Your task to perform on an android device: Show me recent news Image 0: 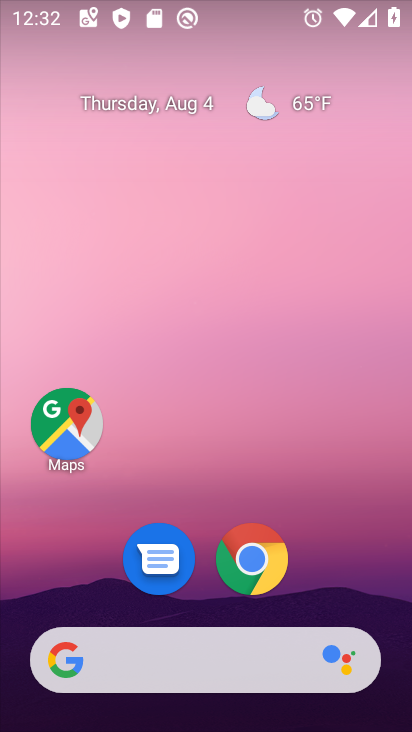
Step 0: drag from (196, 664) to (237, 133)
Your task to perform on an android device: Show me recent news Image 1: 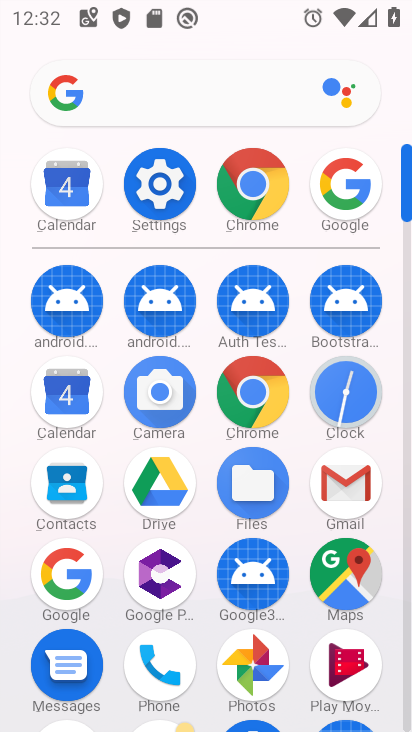
Step 1: click (337, 181)
Your task to perform on an android device: Show me recent news Image 2: 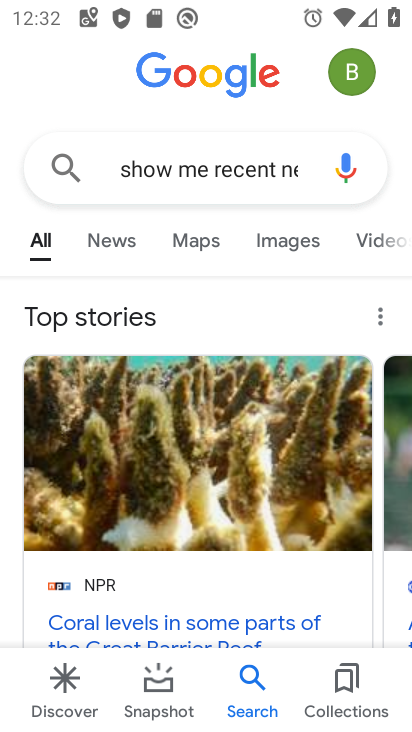
Step 2: drag from (216, 603) to (257, 439)
Your task to perform on an android device: Show me recent news Image 3: 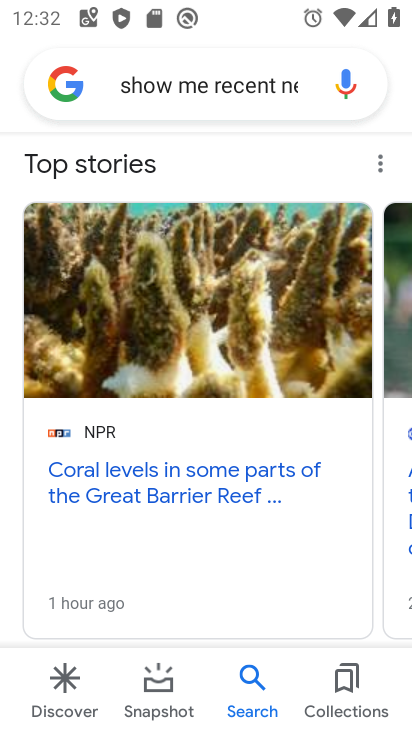
Step 3: click (176, 480)
Your task to perform on an android device: Show me recent news Image 4: 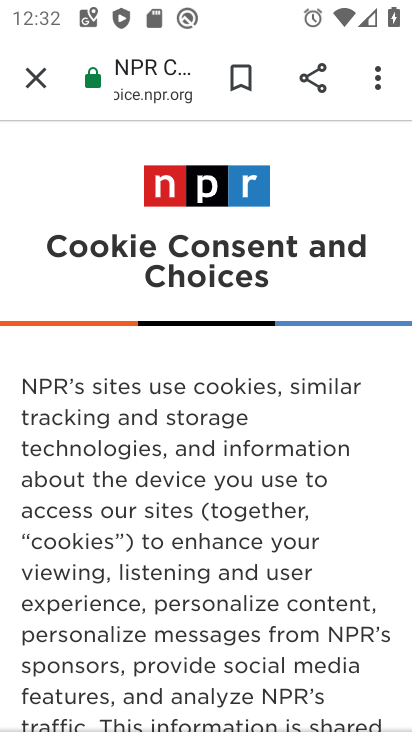
Step 4: task complete